Your task to perform on an android device: open a bookmark in the chrome app Image 0: 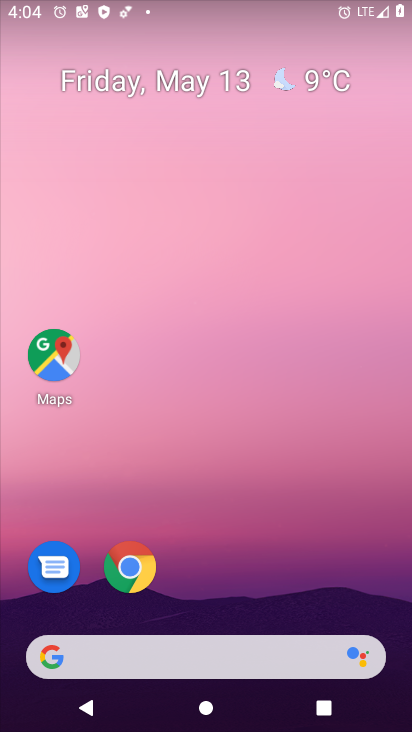
Step 0: click (142, 573)
Your task to perform on an android device: open a bookmark in the chrome app Image 1: 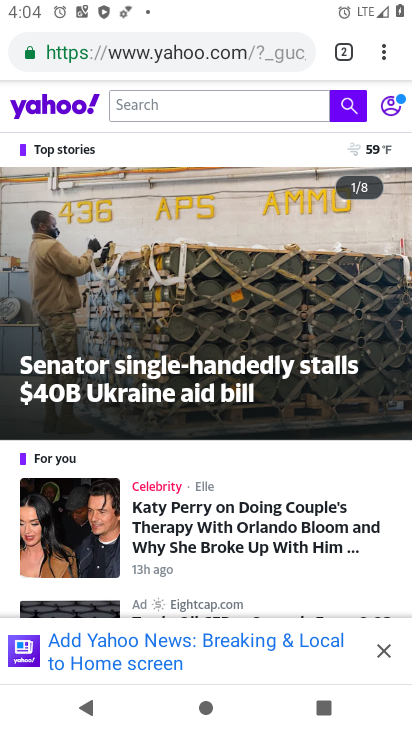
Step 1: click (384, 52)
Your task to perform on an android device: open a bookmark in the chrome app Image 2: 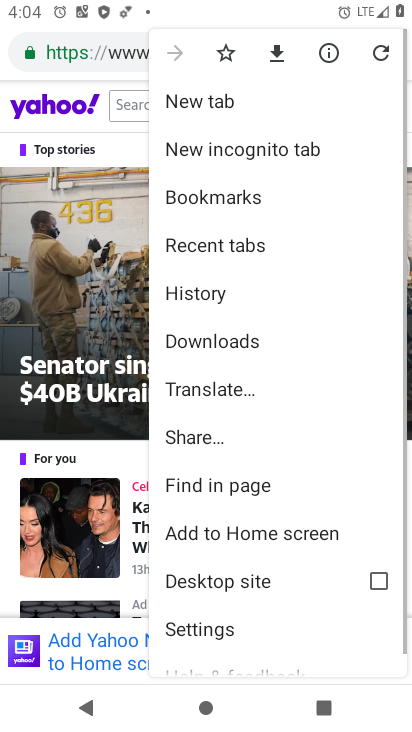
Step 2: click (187, 204)
Your task to perform on an android device: open a bookmark in the chrome app Image 3: 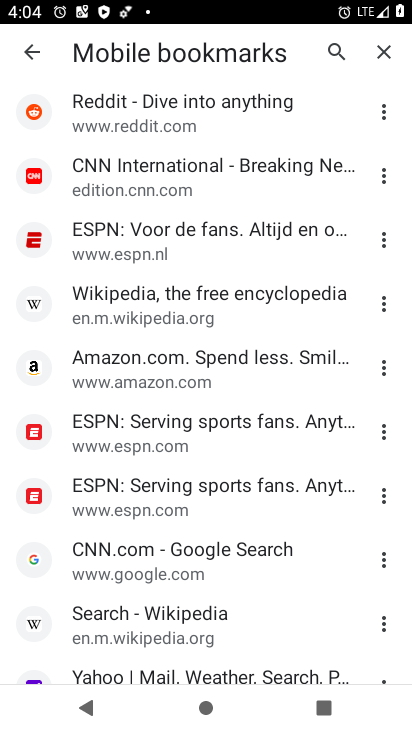
Step 3: click (179, 181)
Your task to perform on an android device: open a bookmark in the chrome app Image 4: 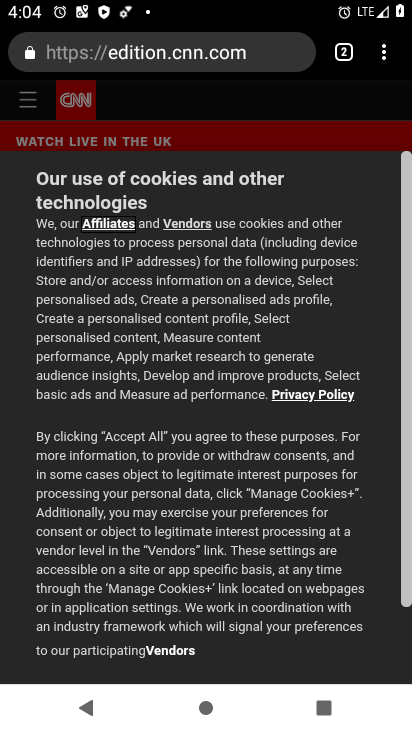
Step 4: task complete